Your task to perform on an android device: open chrome privacy settings Image 0: 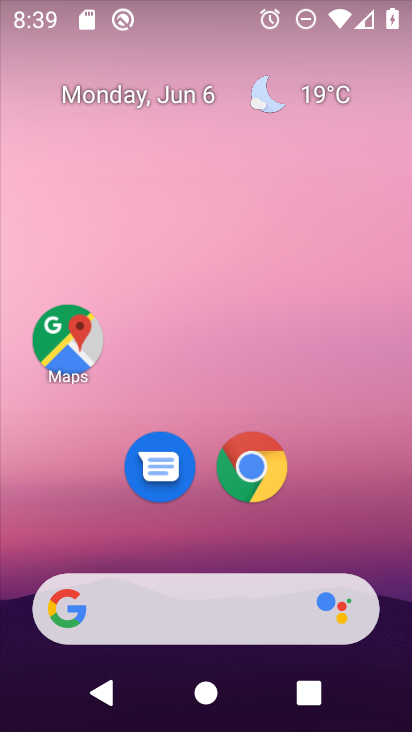
Step 0: drag from (344, 504) to (355, 160)
Your task to perform on an android device: open chrome privacy settings Image 1: 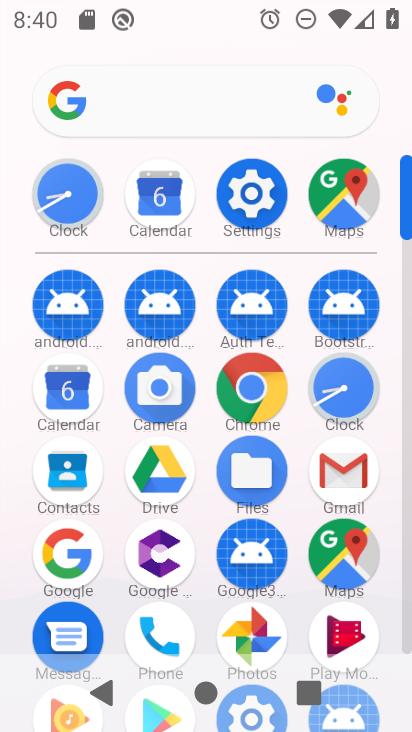
Step 1: click (268, 401)
Your task to perform on an android device: open chrome privacy settings Image 2: 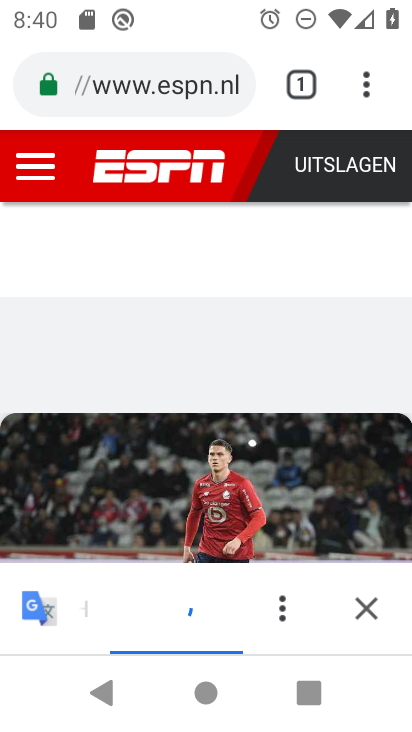
Step 2: click (367, 88)
Your task to perform on an android device: open chrome privacy settings Image 3: 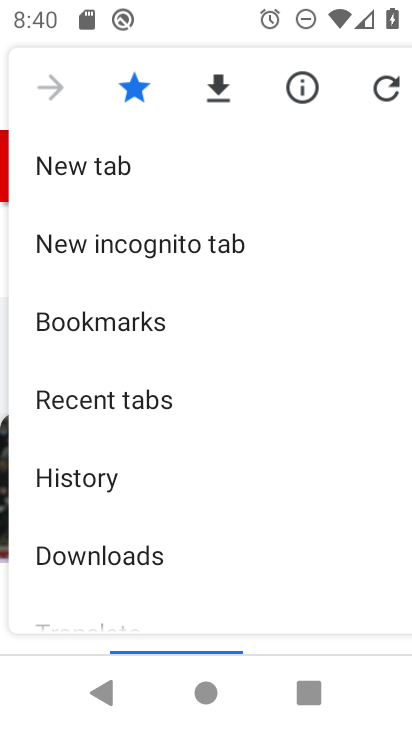
Step 3: drag from (313, 496) to (321, 356)
Your task to perform on an android device: open chrome privacy settings Image 4: 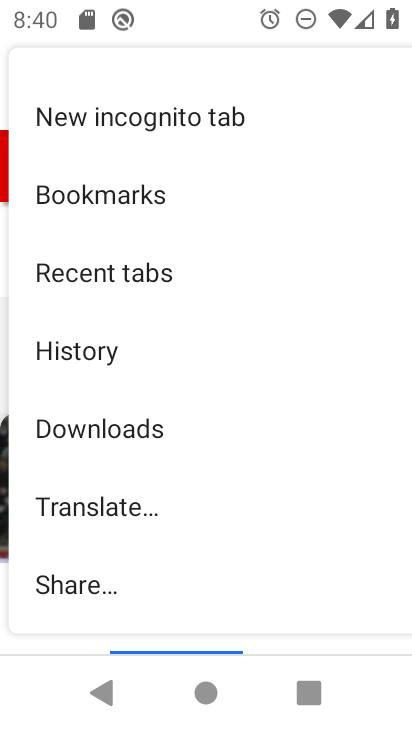
Step 4: drag from (321, 496) to (327, 394)
Your task to perform on an android device: open chrome privacy settings Image 5: 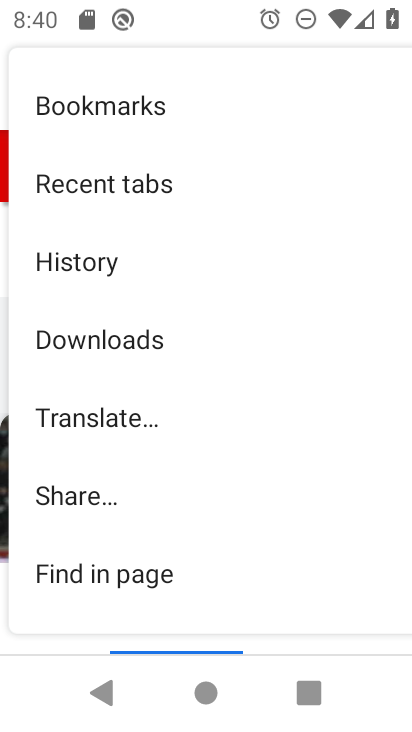
Step 5: drag from (306, 484) to (303, 334)
Your task to perform on an android device: open chrome privacy settings Image 6: 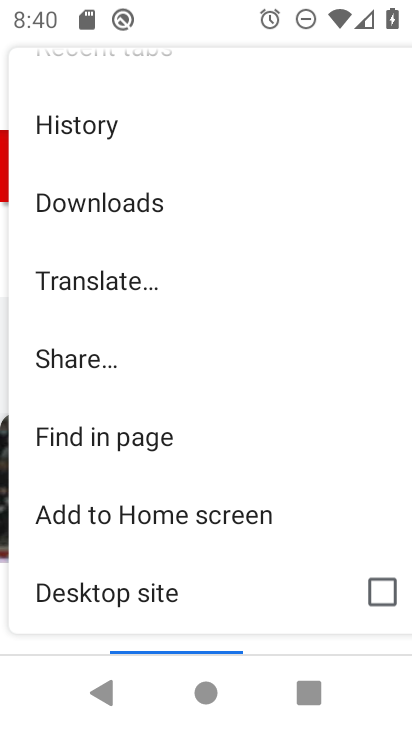
Step 6: drag from (261, 449) to (260, 316)
Your task to perform on an android device: open chrome privacy settings Image 7: 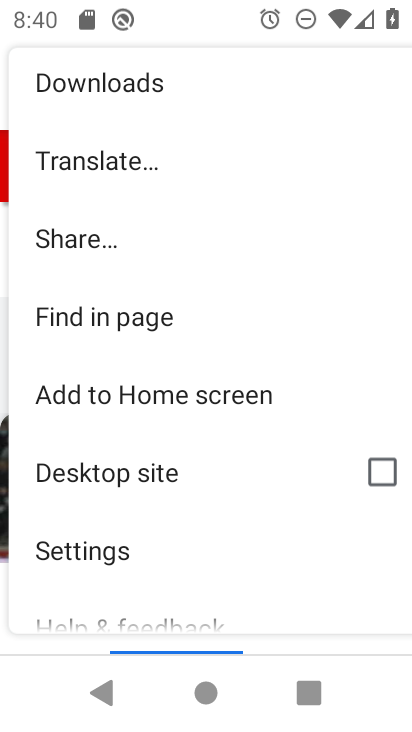
Step 7: click (141, 564)
Your task to perform on an android device: open chrome privacy settings Image 8: 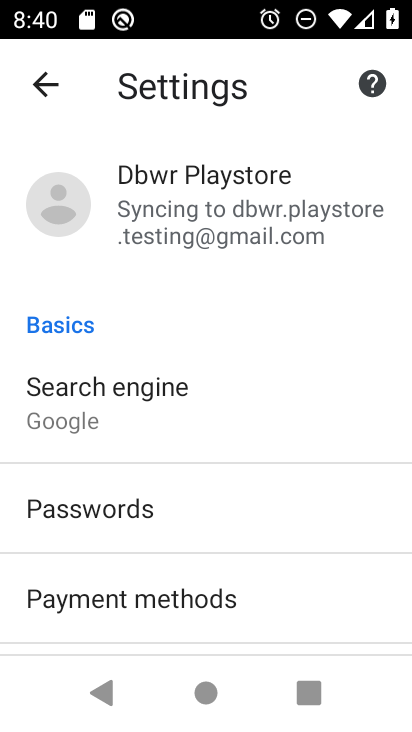
Step 8: drag from (293, 500) to (290, 384)
Your task to perform on an android device: open chrome privacy settings Image 9: 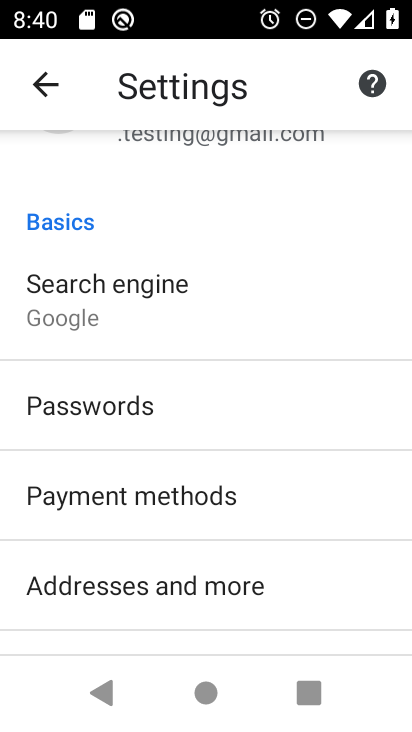
Step 9: drag from (293, 459) to (306, 256)
Your task to perform on an android device: open chrome privacy settings Image 10: 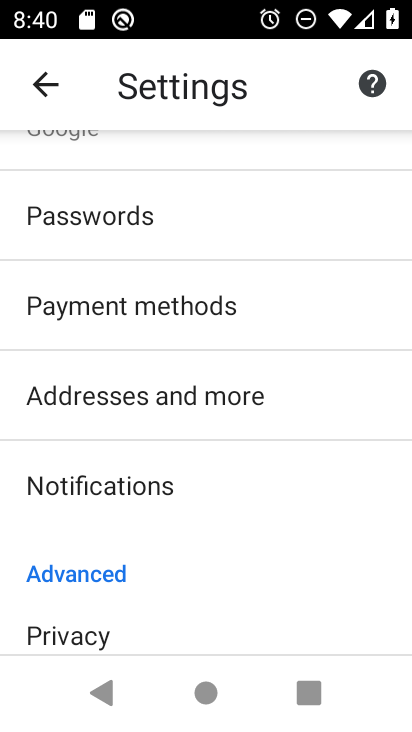
Step 10: drag from (297, 516) to (318, 393)
Your task to perform on an android device: open chrome privacy settings Image 11: 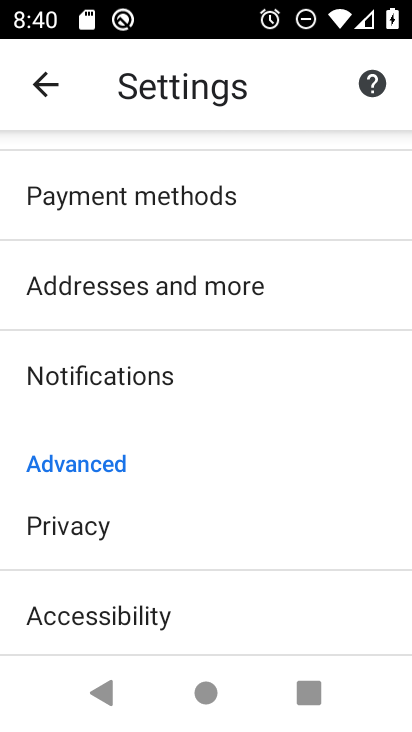
Step 11: drag from (295, 515) to (313, 385)
Your task to perform on an android device: open chrome privacy settings Image 12: 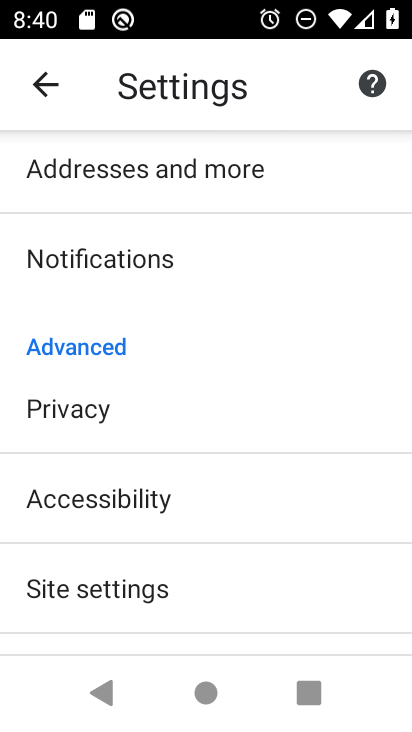
Step 12: drag from (298, 527) to (316, 368)
Your task to perform on an android device: open chrome privacy settings Image 13: 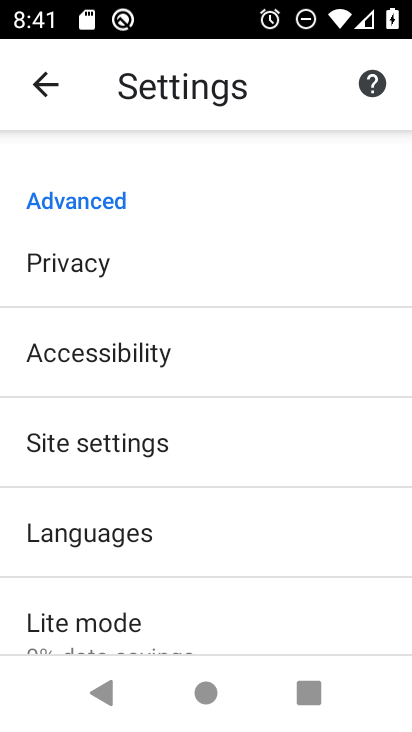
Step 13: click (188, 274)
Your task to perform on an android device: open chrome privacy settings Image 14: 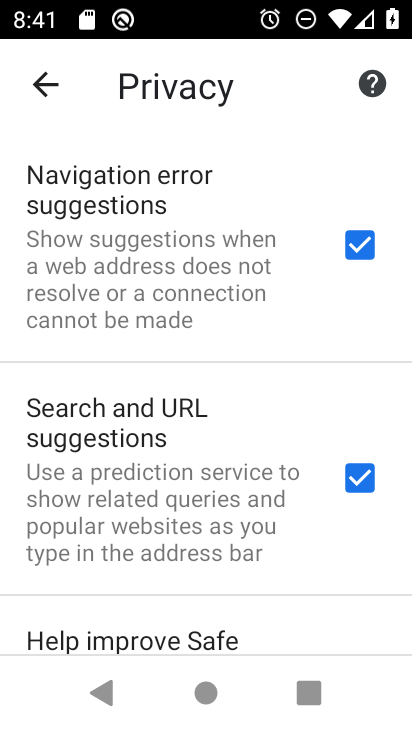
Step 14: task complete